Your task to perform on an android device: delete the emails in spam in the gmail app Image 0: 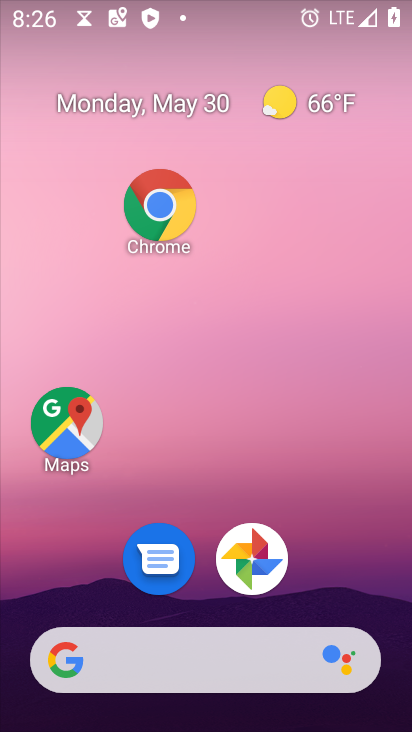
Step 0: drag from (248, 702) to (277, 180)
Your task to perform on an android device: delete the emails in spam in the gmail app Image 1: 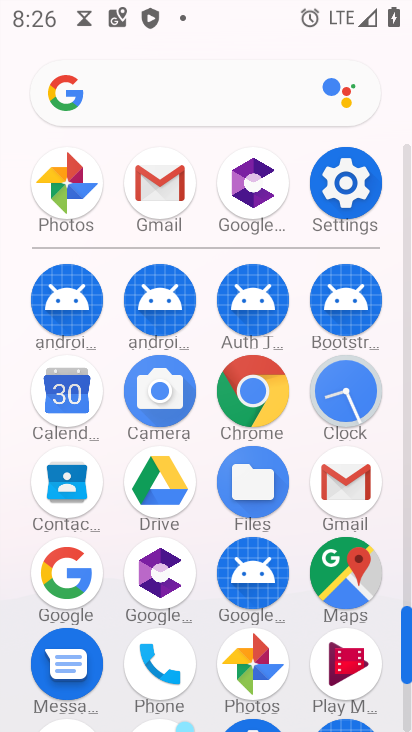
Step 1: click (334, 465)
Your task to perform on an android device: delete the emails in spam in the gmail app Image 2: 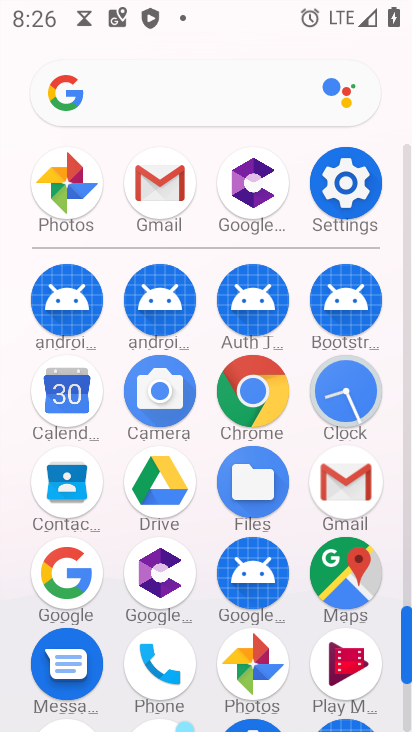
Step 2: click (335, 467)
Your task to perform on an android device: delete the emails in spam in the gmail app Image 3: 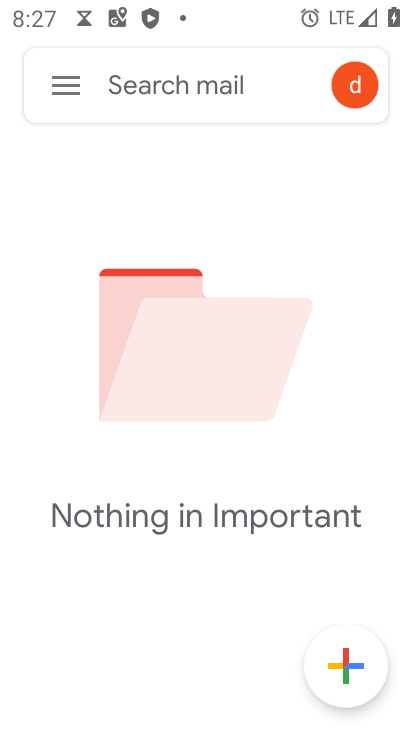
Step 3: click (53, 83)
Your task to perform on an android device: delete the emails in spam in the gmail app Image 4: 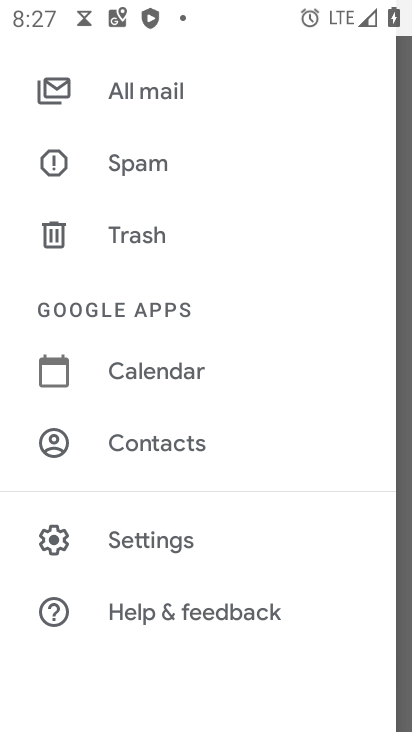
Step 4: click (144, 542)
Your task to perform on an android device: delete the emails in spam in the gmail app Image 5: 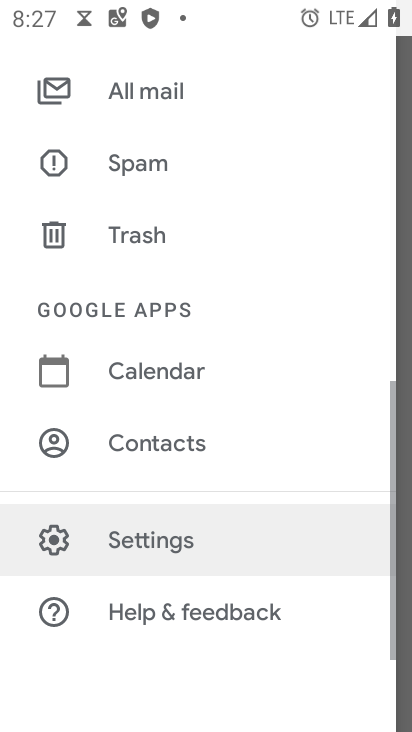
Step 5: click (144, 543)
Your task to perform on an android device: delete the emails in spam in the gmail app Image 6: 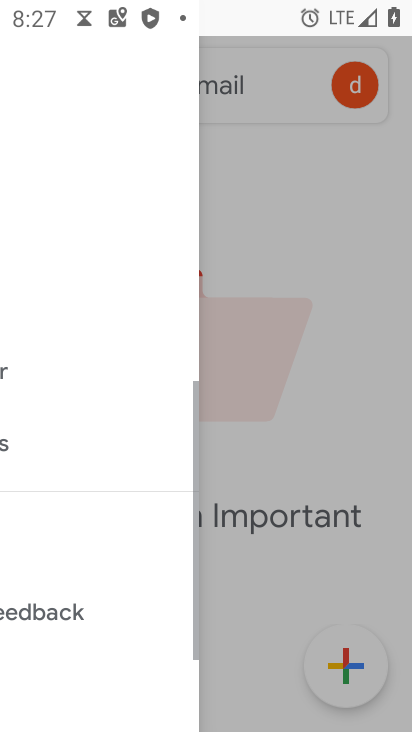
Step 6: click (144, 543)
Your task to perform on an android device: delete the emails in spam in the gmail app Image 7: 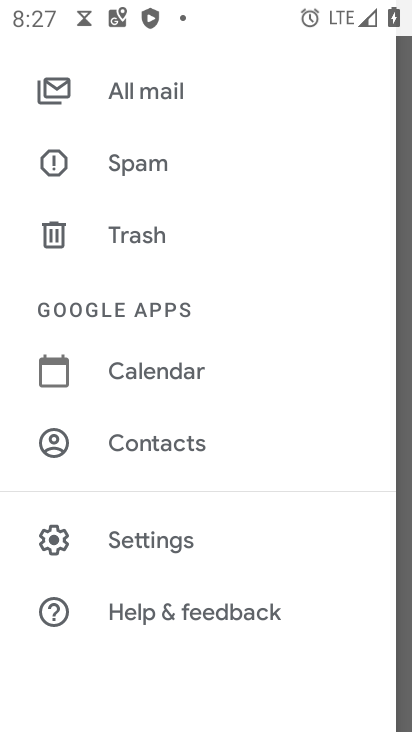
Step 7: click (162, 541)
Your task to perform on an android device: delete the emails in spam in the gmail app Image 8: 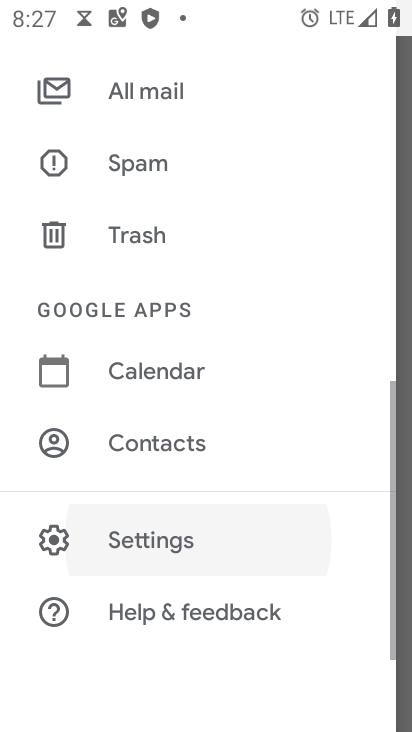
Step 8: click (162, 541)
Your task to perform on an android device: delete the emails in spam in the gmail app Image 9: 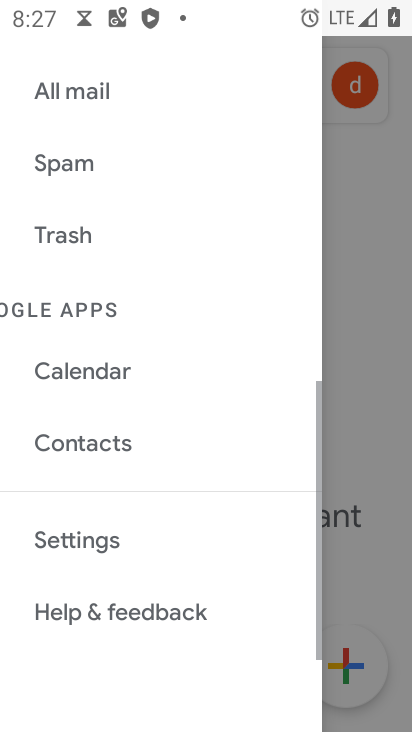
Step 9: click (162, 541)
Your task to perform on an android device: delete the emails in spam in the gmail app Image 10: 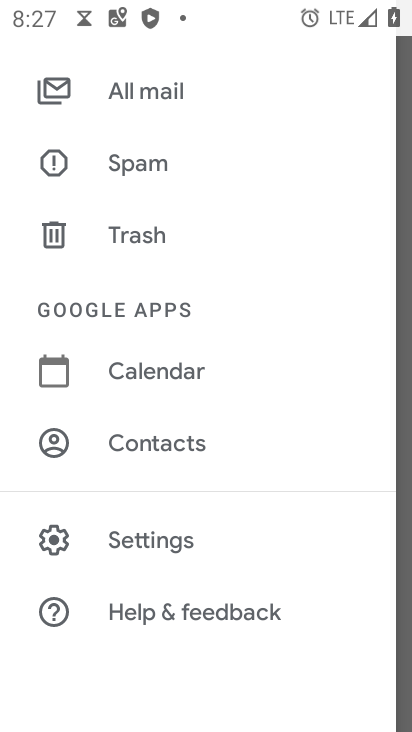
Step 10: click (140, 538)
Your task to perform on an android device: delete the emails in spam in the gmail app Image 11: 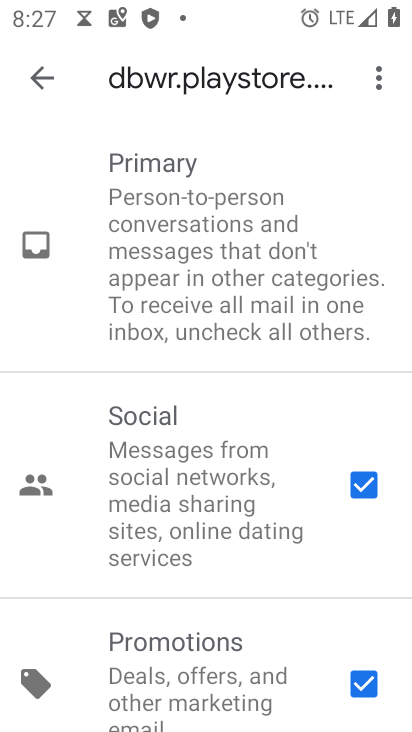
Step 11: click (40, 67)
Your task to perform on an android device: delete the emails in spam in the gmail app Image 12: 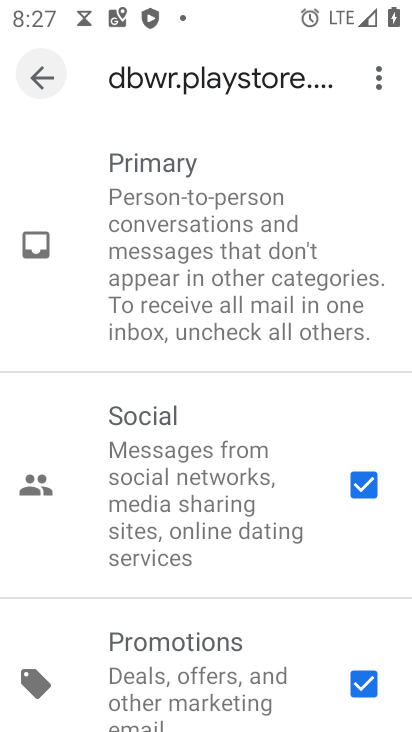
Step 12: click (40, 67)
Your task to perform on an android device: delete the emails in spam in the gmail app Image 13: 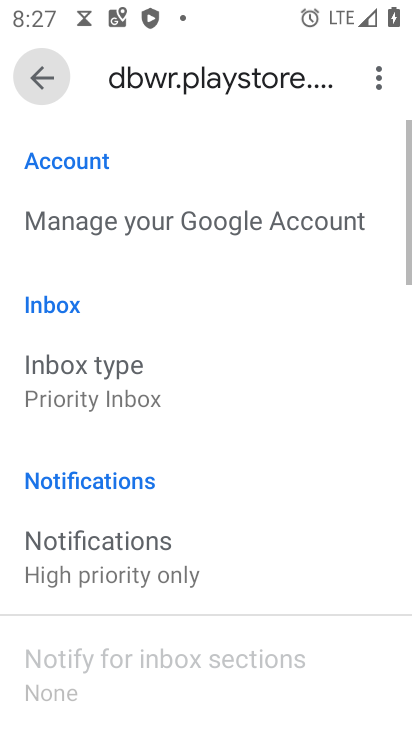
Step 13: click (42, 69)
Your task to perform on an android device: delete the emails in spam in the gmail app Image 14: 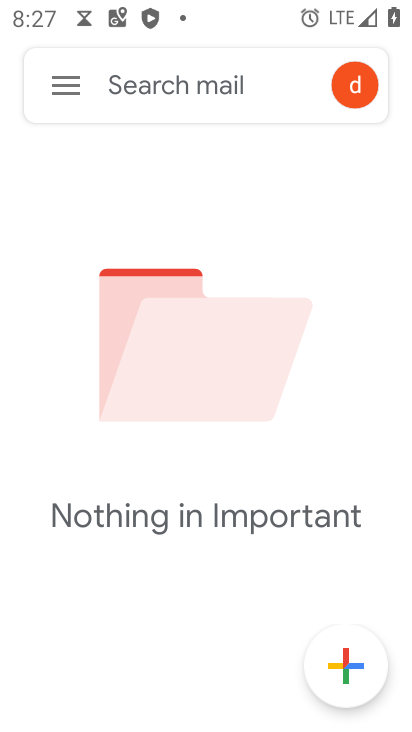
Step 14: click (67, 92)
Your task to perform on an android device: delete the emails in spam in the gmail app Image 15: 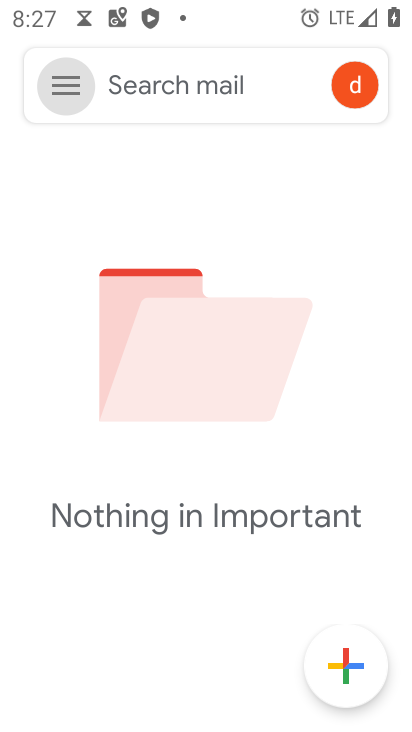
Step 15: click (68, 87)
Your task to perform on an android device: delete the emails in spam in the gmail app Image 16: 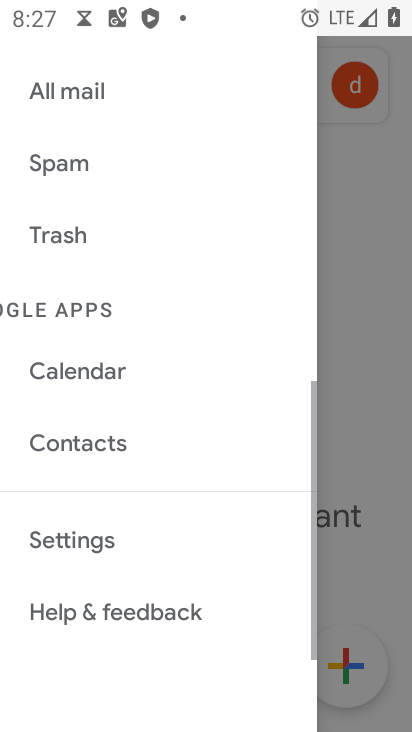
Step 16: click (76, 87)
Your task to perform on an android device: delete the emails in spam in the gmail app Image 17: 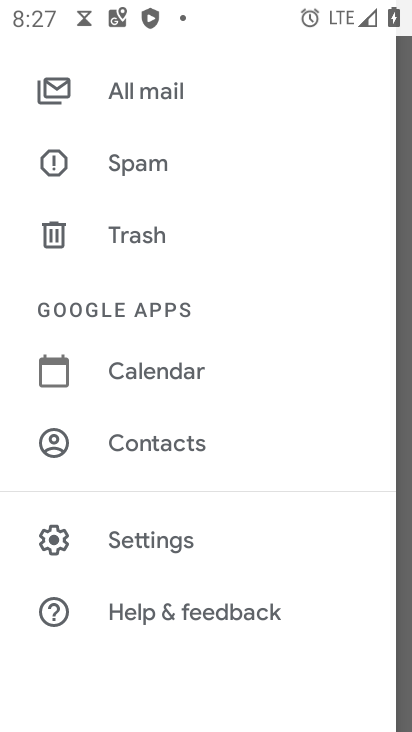
Step 17: click (137, 157)
Your task to perform on an android device: delete the emails in spam in the gmail app Image 18: 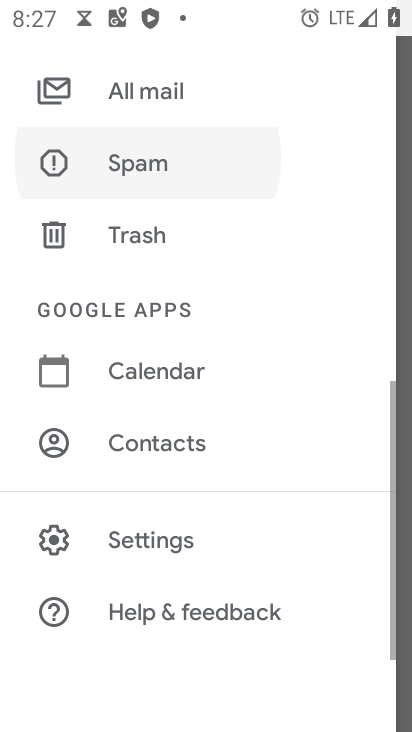
Step 18: click (137, 163)
Your task to perform on an android device: delete the emails in spam in the gmail app Image 19: 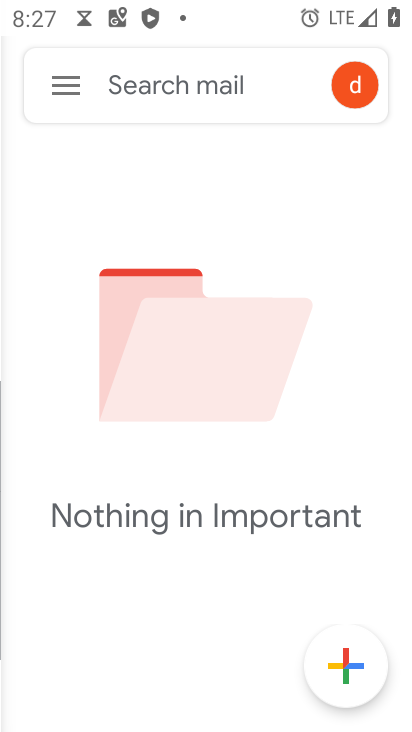
Step 19: click (139, 163)
Your task to perform on an android device: delete the emails in spam in the gmail app Image 20: 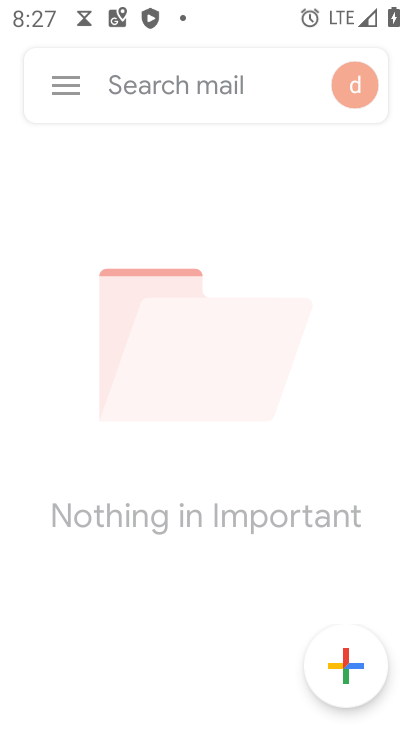
Step 20: click (142, 159)
Your task to perform on an android device: delete the emails in spam in the gmail app Image 21: 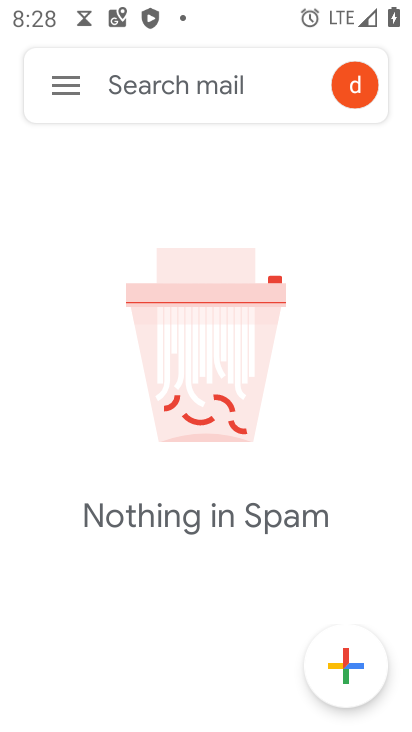
Step 21: task complete